Your task to perform on an android device: Search for vegetarian restaurants on Maps Image 0: 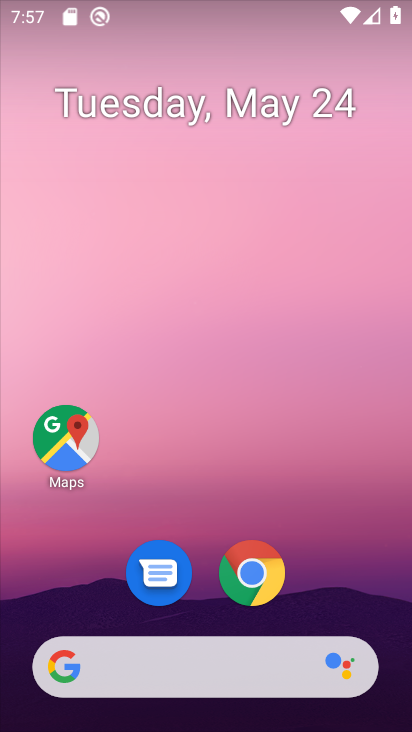
Step 0: drag from (364, 558) to (285, 23)
Your task to perform on an android device: Search for vegetarian restaurants on Maps Image 1: 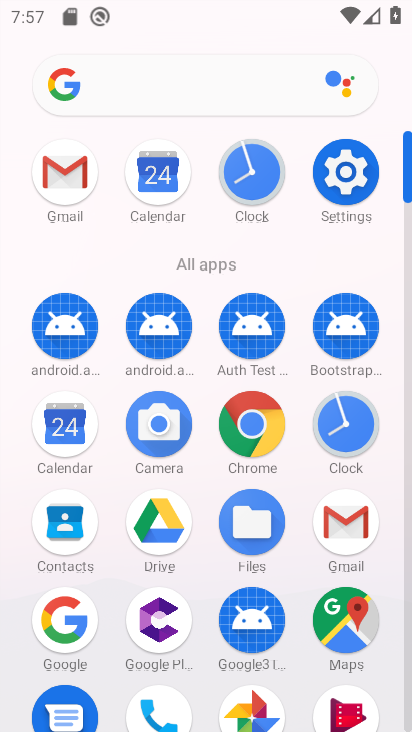
Step 1: click (355, 615)
Your task to perform on an android device: Search for vegetarian restaurants on Maps Image 2: 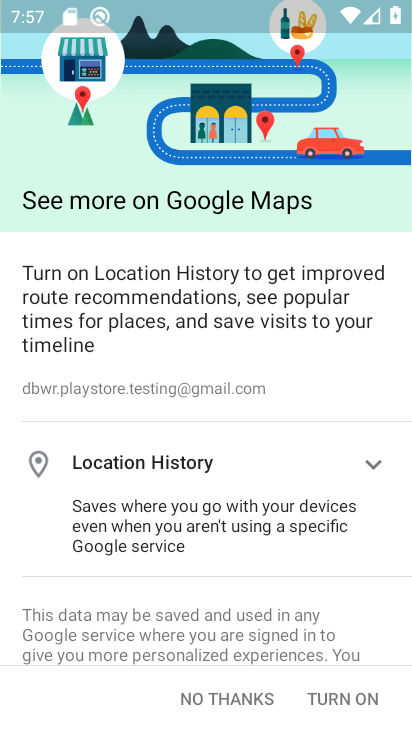
Step 2: press back button
Your task to perform on an android device: Search for vegetarian restaurants on Maps Image 3: 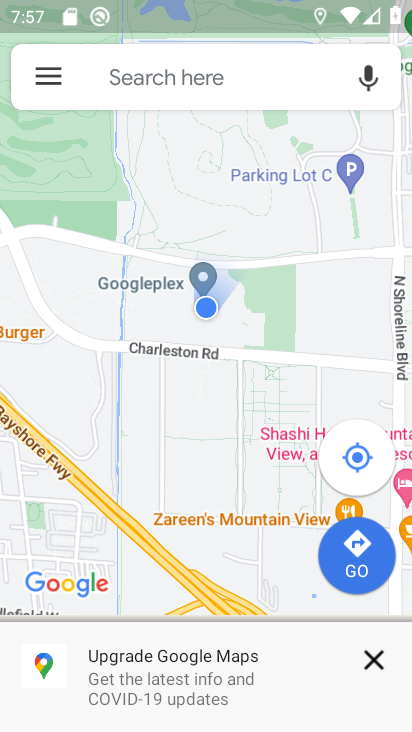
Step 3: click (198, 68)
Your task to perform on an android device: Search for vegetarian restaurants on Maps Image 4: 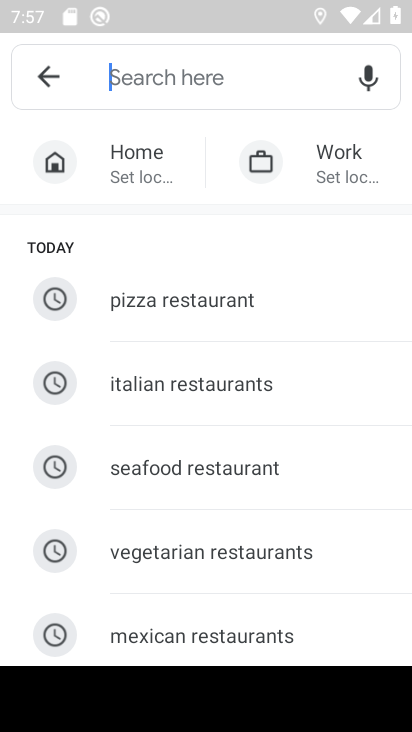
Step 4: click (269, 555)
Your task to perform on an android device: Search for vegetarian restaurants on Maps Image 5: 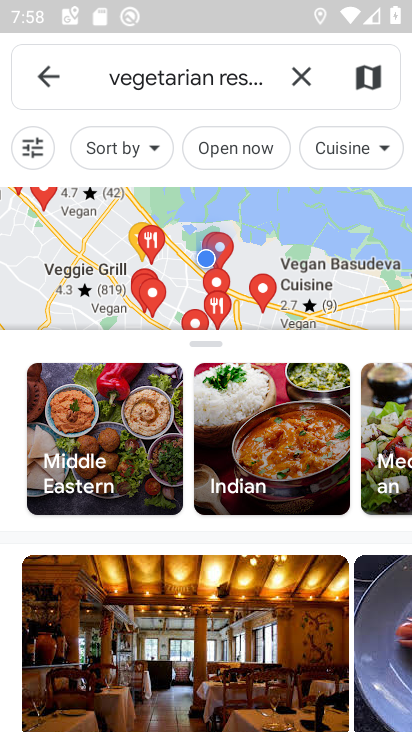
Step 5: task complete